Your task to perform on an android device: show emergency info Image 0: 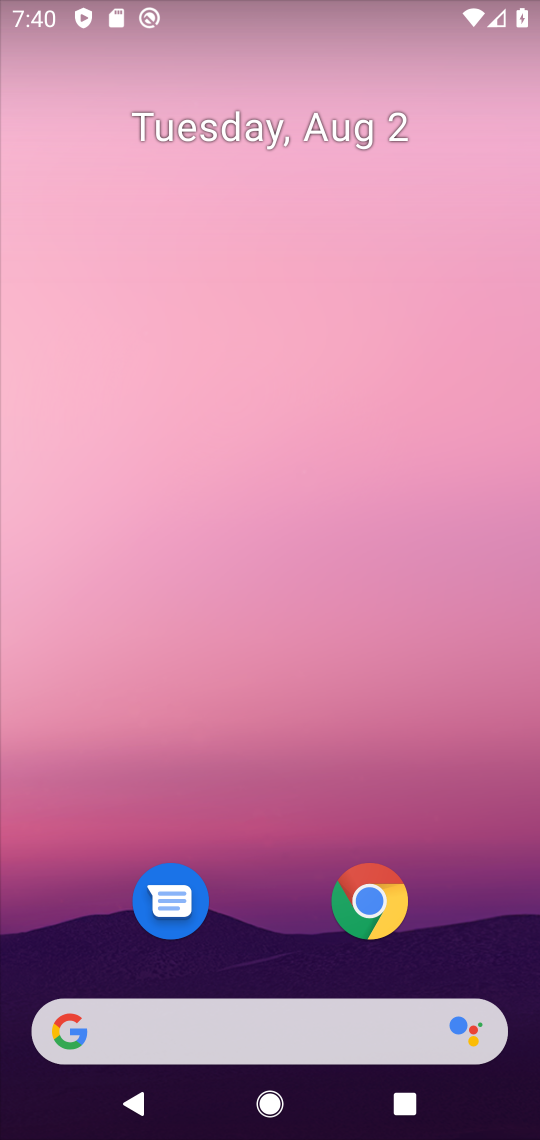
Step 0: drag from (509, 958) to (516, 424)
Your task to perform on an android device: show emergency info Image 1: 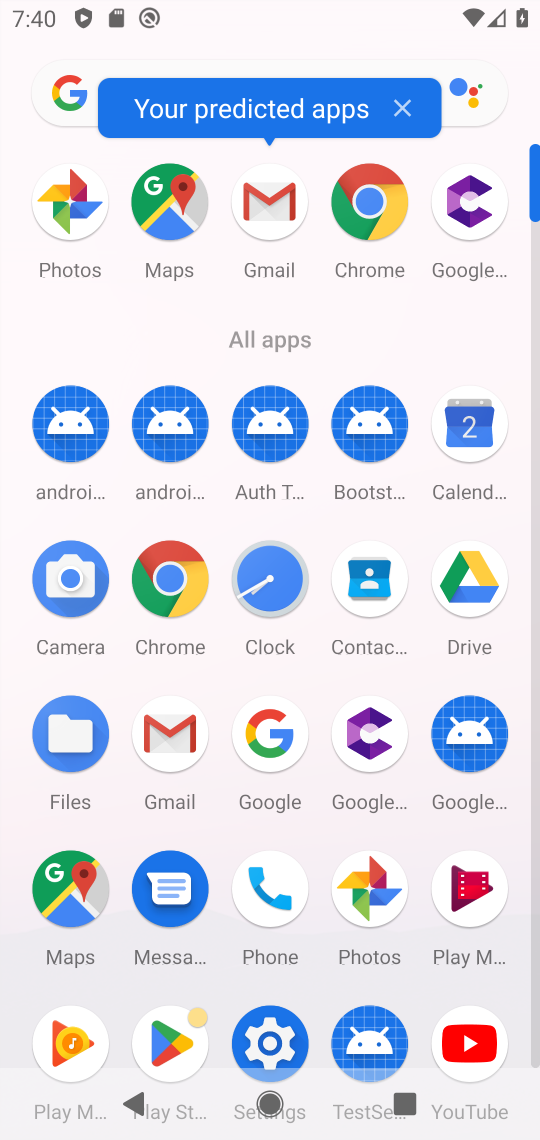
Step 1: click (278, 1048)
Your task to perform on an android device: show emergency info Image 2: 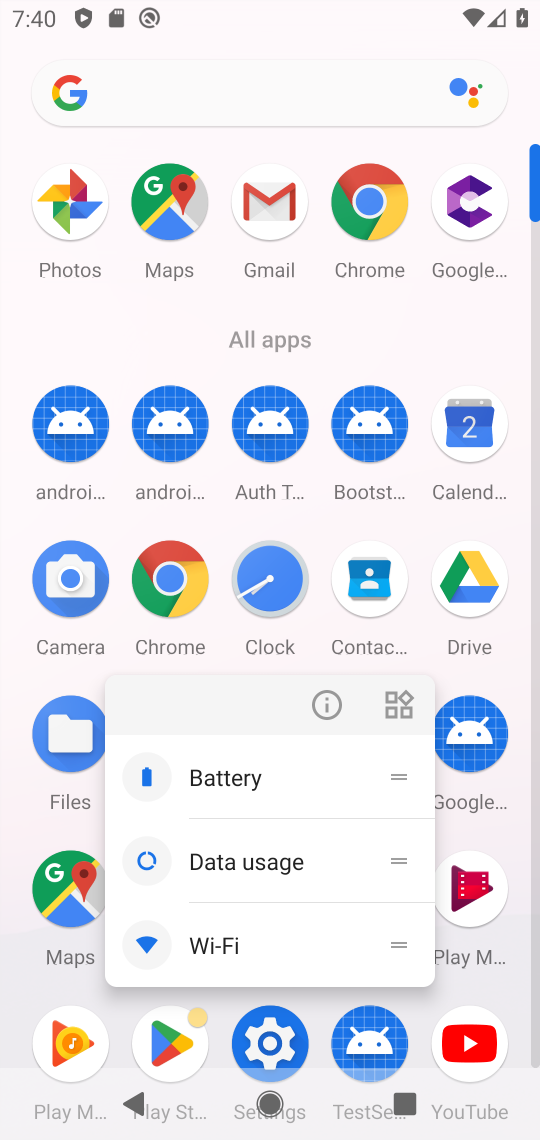
Step 2: click (269, 1032)
Your task to perform on an android device: show emergency info Image 3: 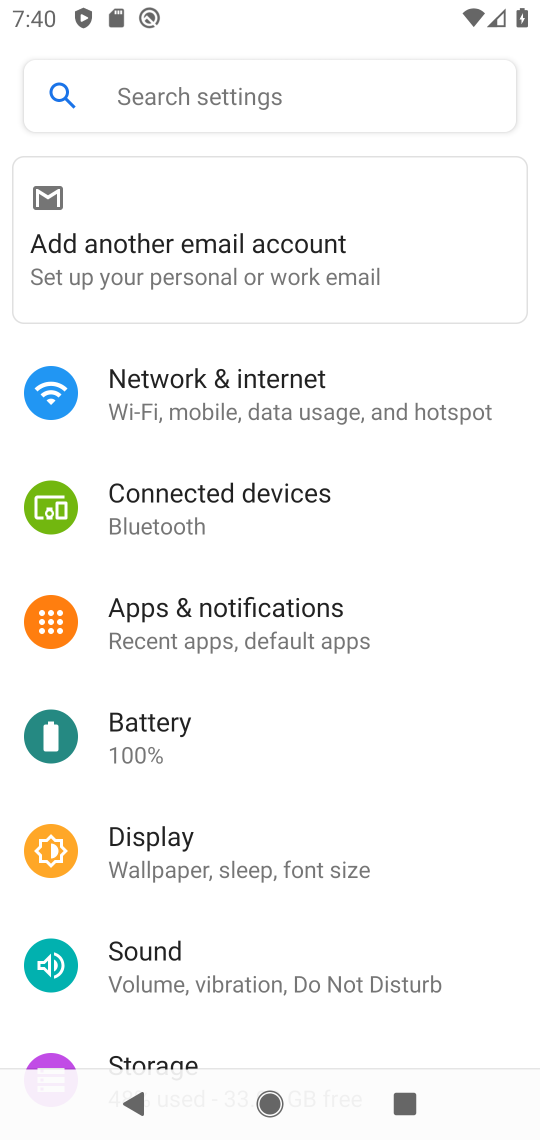
Step 3: drag from (391, 1009) to (295, 159)
Your task to perform on an android device: show emergency info Image 4: 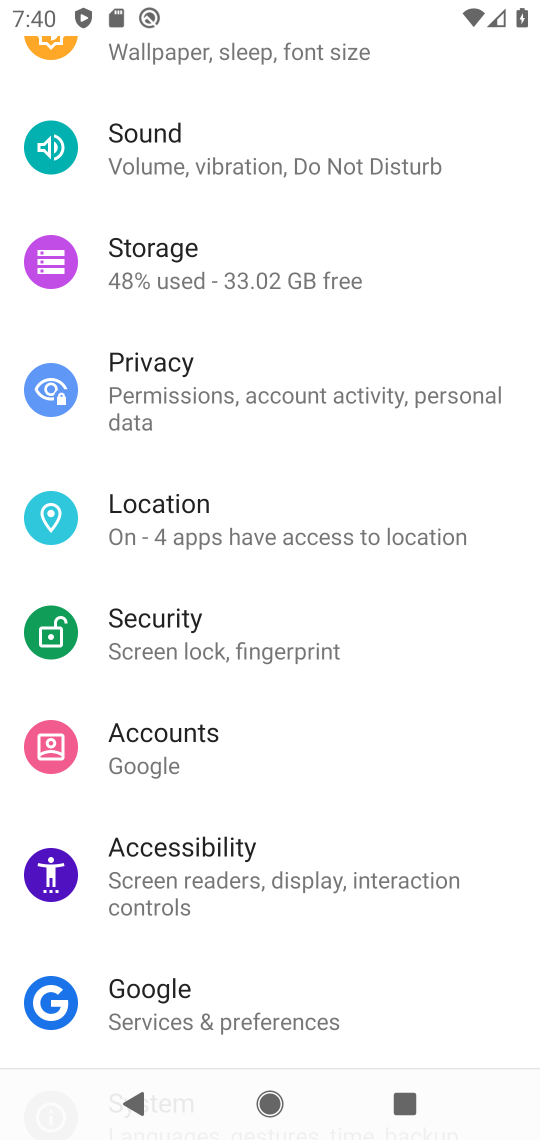
Step 4: drag from (368, 956) to (291, 243)
Your task to perform on an android device: show emergency info Image 5: 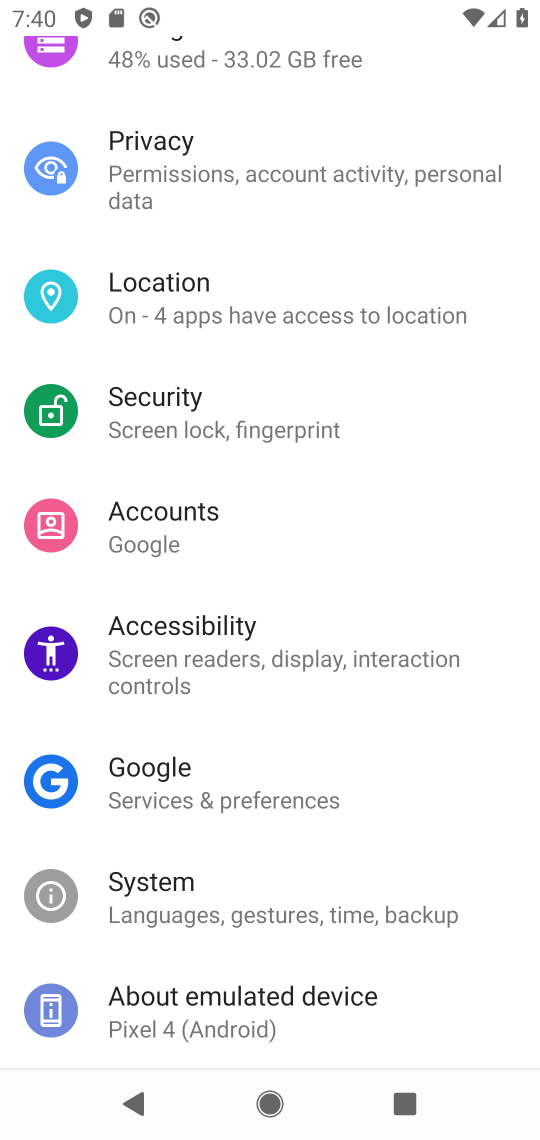
Step 5: click (391, 1015)
Your task to perform on an android device: show emergency info Image 6: 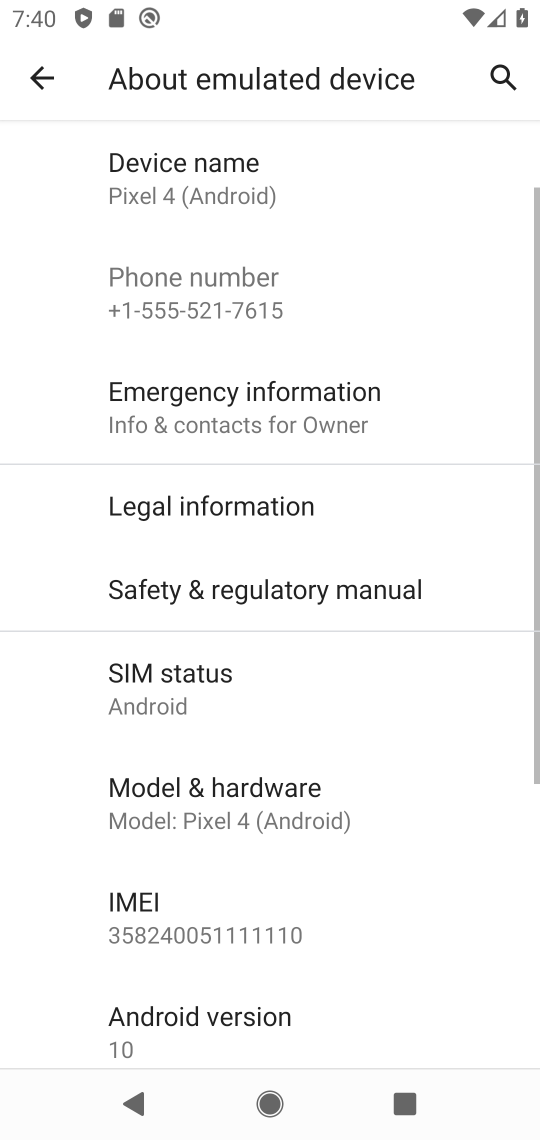
Step 6: click (422, 431)
Your task to perform on an android device: show emergency info Image 7: 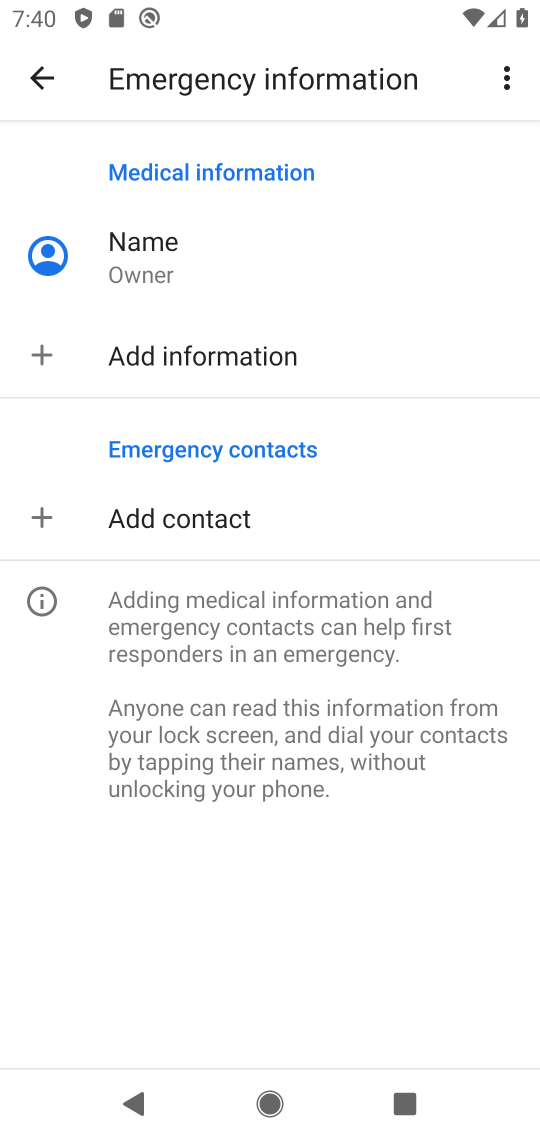
Step 7: task complete